Your task to perform on an android device: Open eBay Image 0: 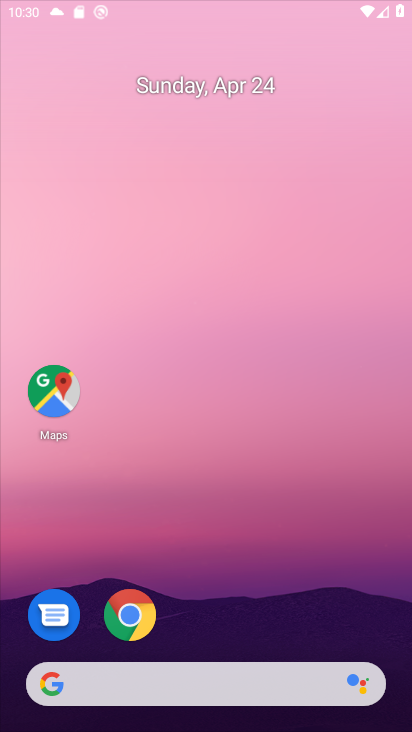
Step 0: click (302, 24)
Your task to perform on an android device: Open eBay Image 1: 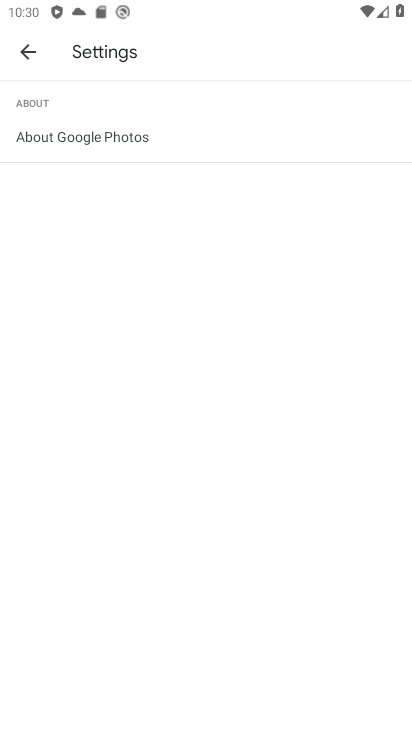
Step 1: press home button
Your task to perform on an android device: Open eBay Image 2: 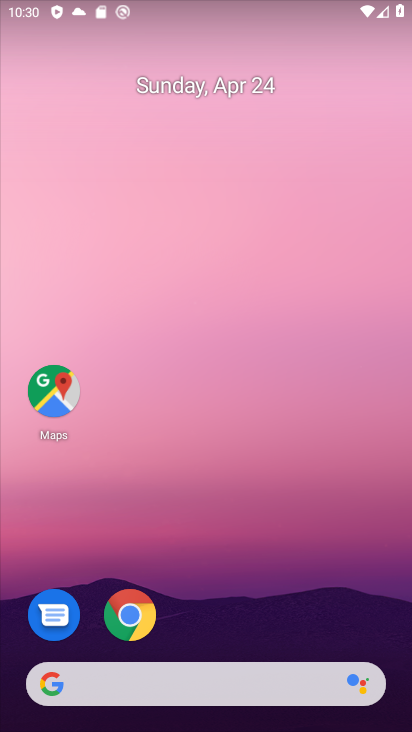
Step 2: drag from (225, 641) to (272, 29)
Your task to perform on an android device: Open eBay Image 3: 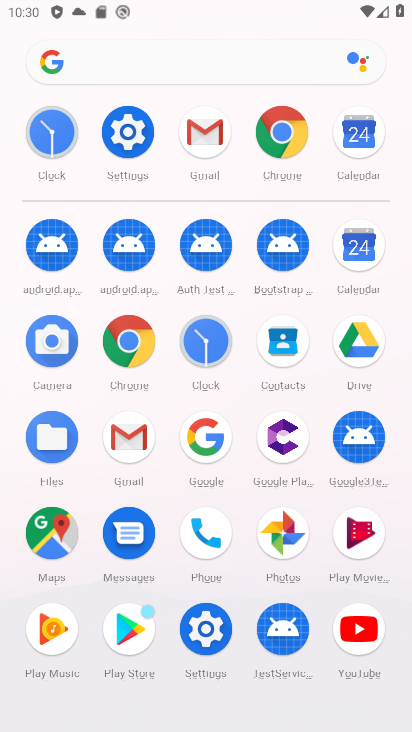
Step 3: click (129, 331)
Your task to perform on an android device: Open eBay Image 4: 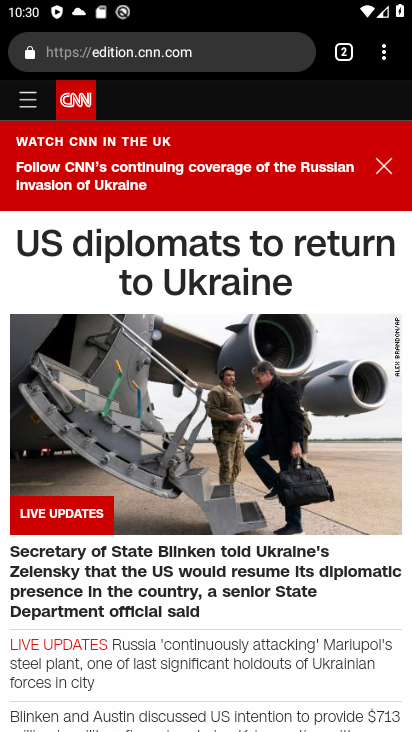
Step 4: click (333, 45)
Your task to perform on an android device: Open eBay Image 5: 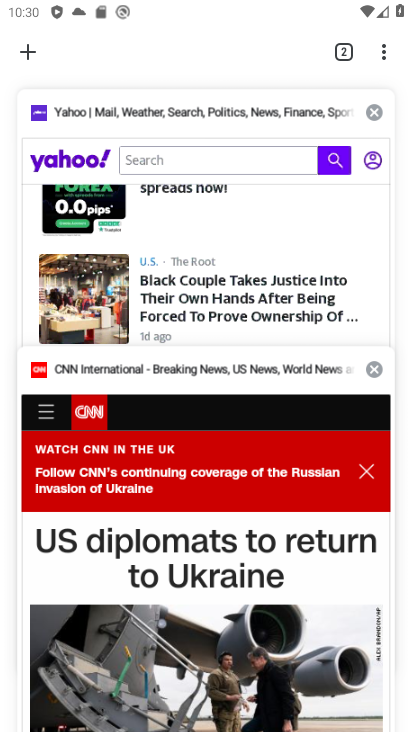
Step 5: click (372, 106)
Your task to perform on an android device: Open eBay Image 6: 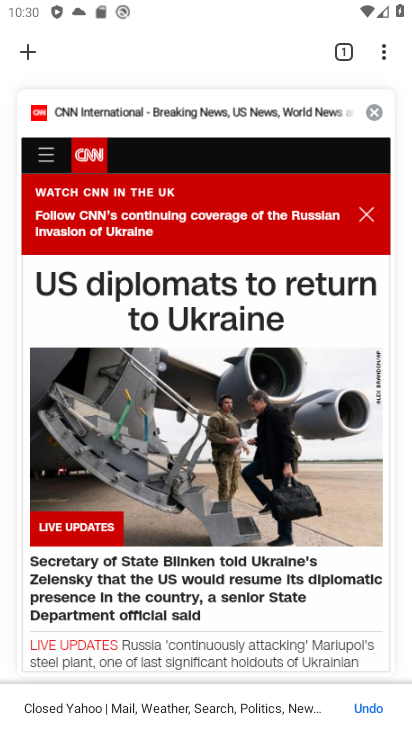
Step 6: click (372, 106)
Your task to perform on an android device: Open eBay Image 7: 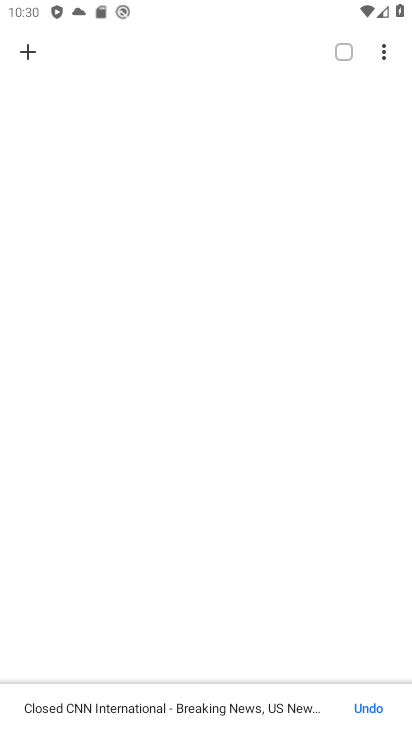
Step 7: click (30, 48)
Your task to perform on an android device: Open eBay Image 8: 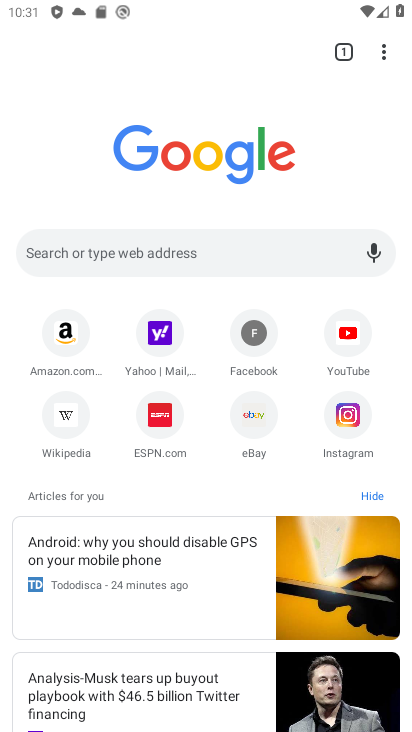
Step 8: click (249, 415)
Your task to perform on an android device: Open eBay Image 9: 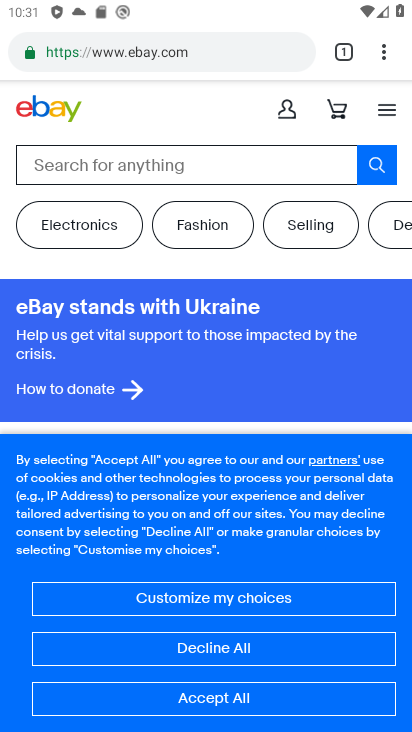
Step 9: click (216, 697)
Your task to perform on an android device: Open eBay Image 10: 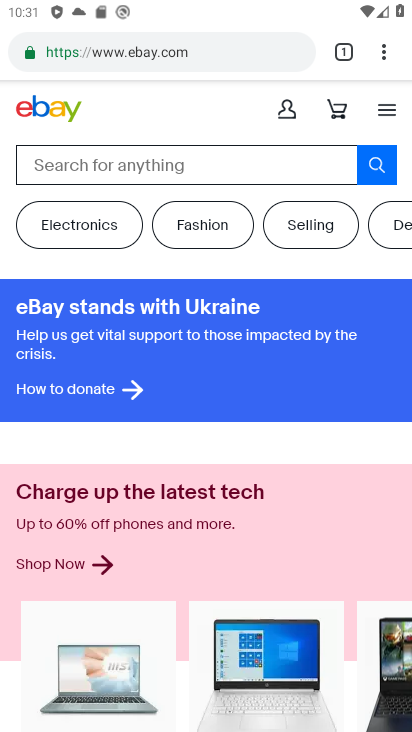
Step 10: task complete